Your task to perform on an android device: uninstall "Microsoft Authenticator" Image 0: 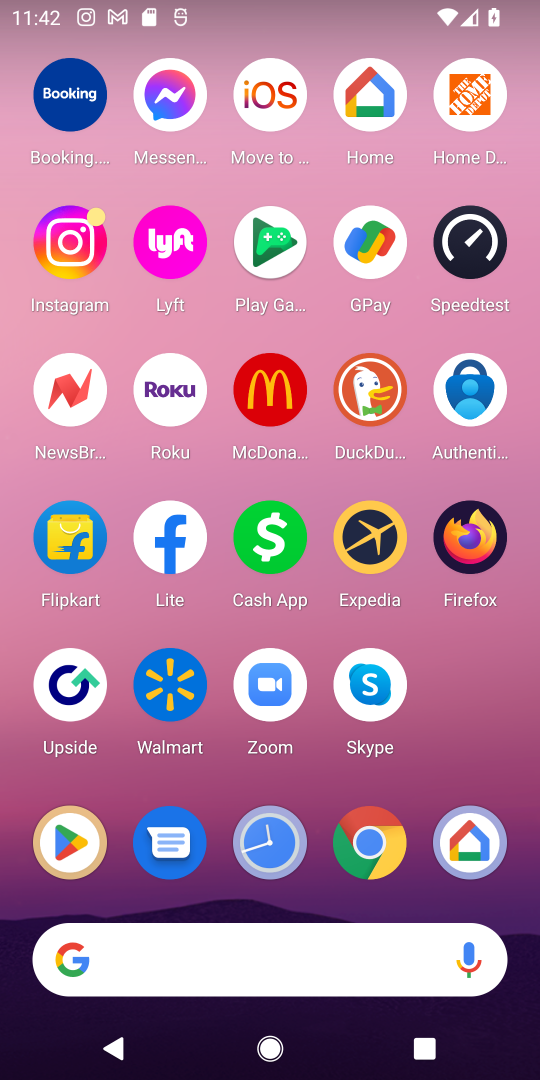
Step 0: click (64, 847)
Your task to perform on an android device: uninstall "Microsoft Authenticator" Image 1: 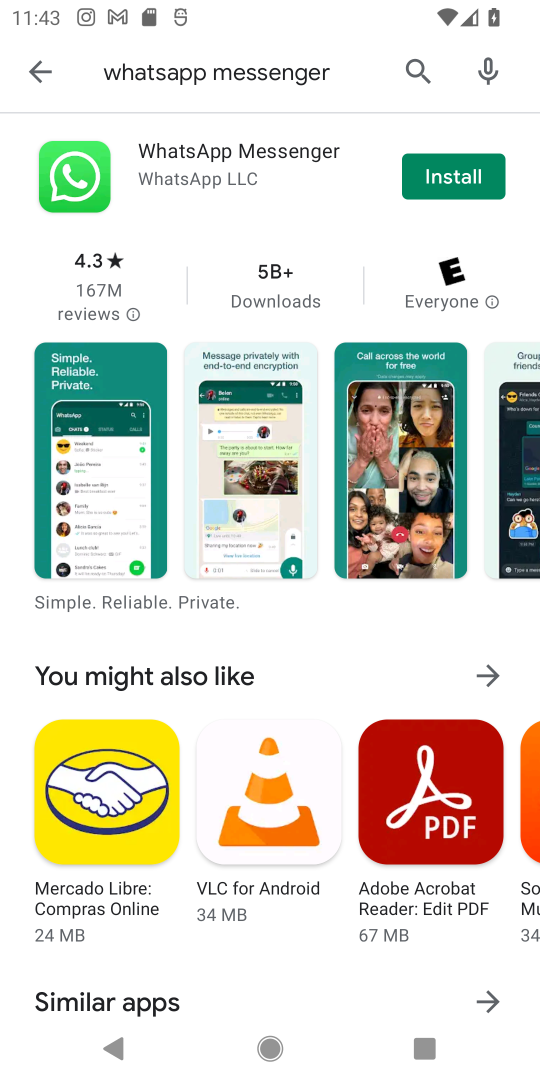
Step 1: click (425, 78)
Your task to perform on an android device: uninstall "Microsoft Authenticator" Image 2: 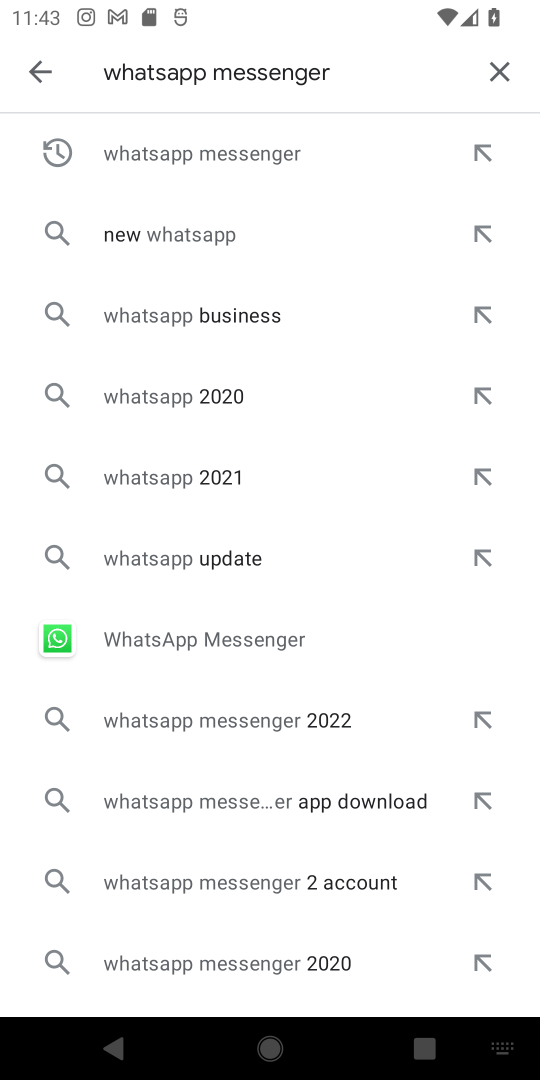
Step 2: click (497, 69)
Your task to perform on an android device: uninstall "Microsoft Authenticator" Image 3: 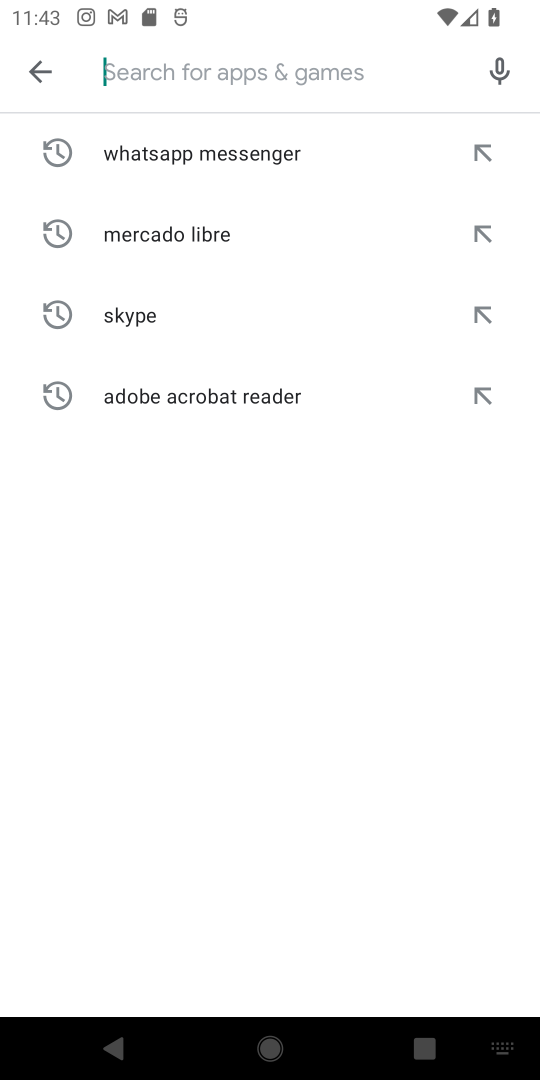
Step 3: click (206, 58)
Your task to perform on an android device: uninstall "Microsoft Authenticator" Image 4: 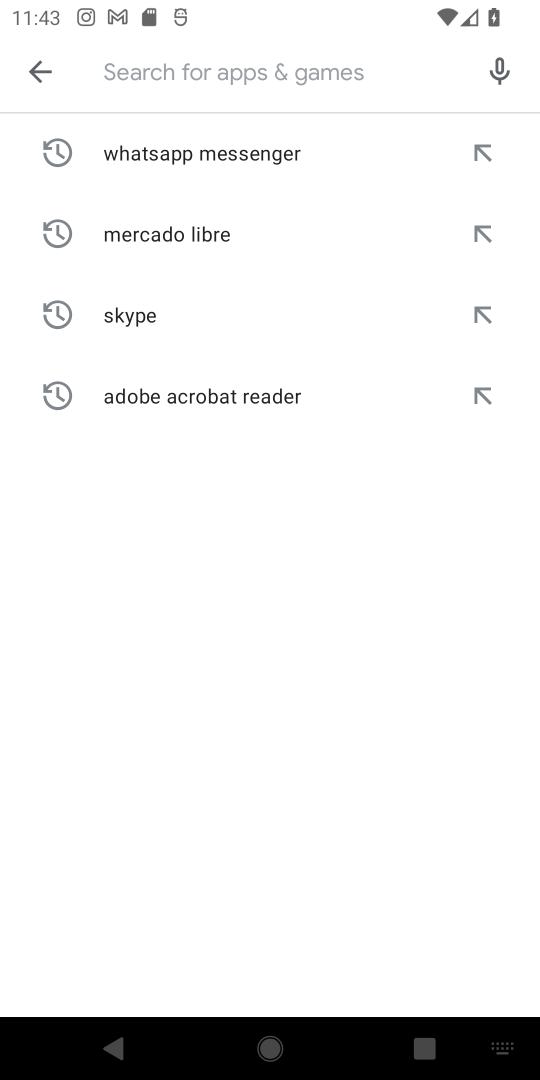
Step 4: type "Microsoft Authenticator"
Your task to perform on an android device: uninstall "Microsoft Authenticator" Image 5: 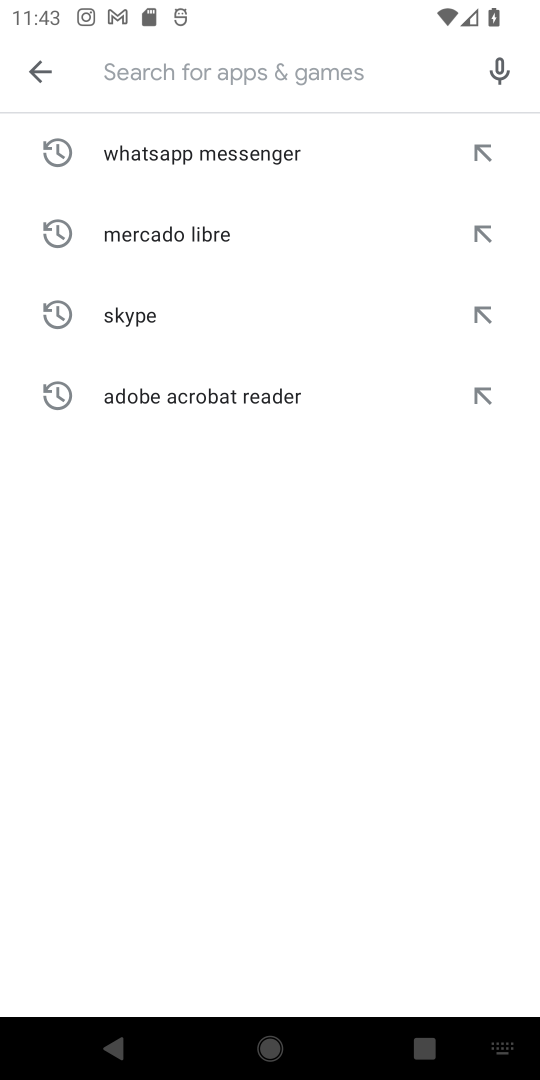
Step 5: click (97, 559)
Your task to perform on an android device: uninstall "Microsoft Authenticator" Image 6: 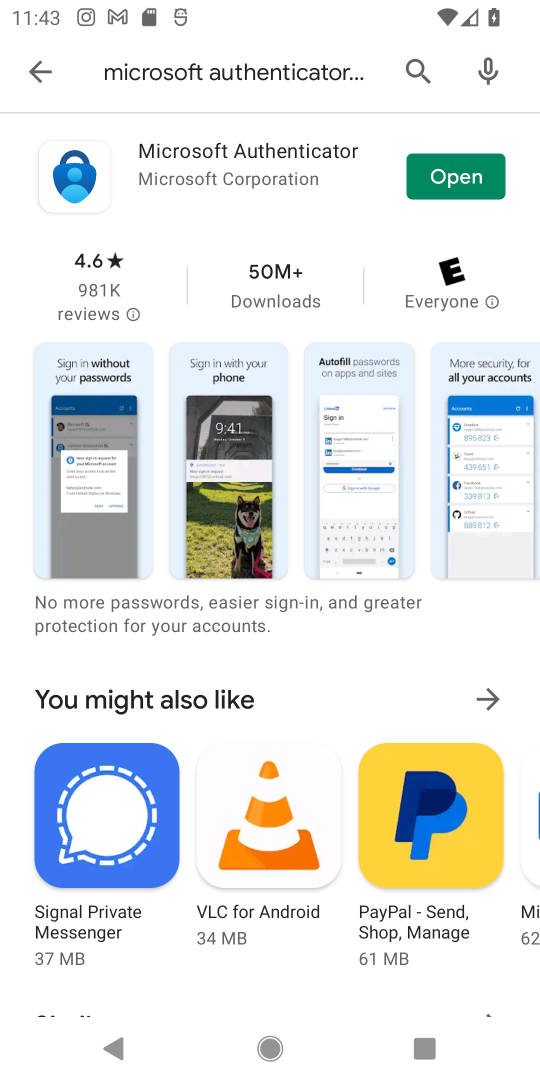
Step 6: click (216, 152)
Your task to perform on an android device: uninstall "Microsoft Authenticator" Image 7: 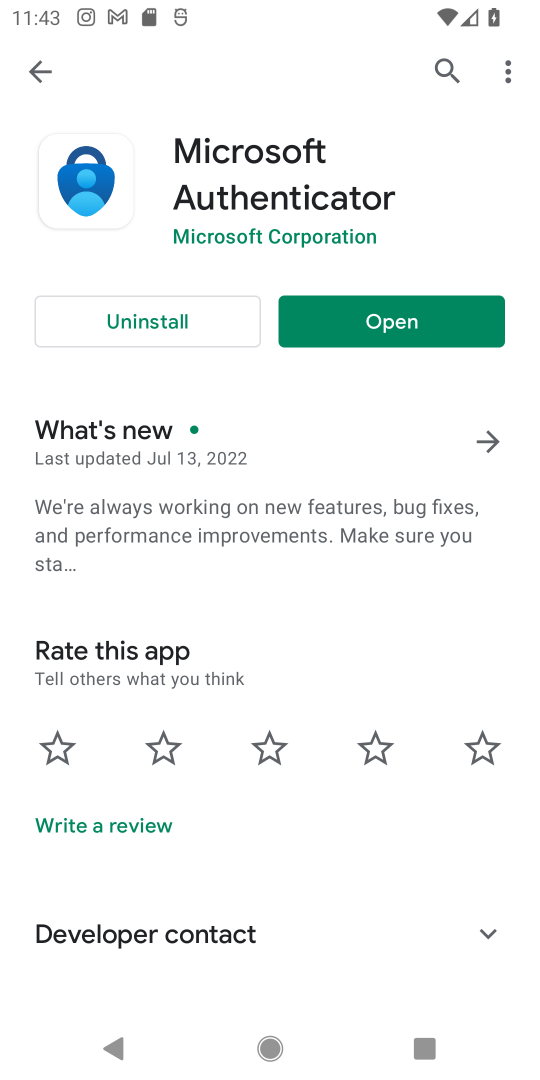
Step 7: click (155, 323)
Your task to perform on an android device: uninstall "Microsoft Authenticator" Image 8: 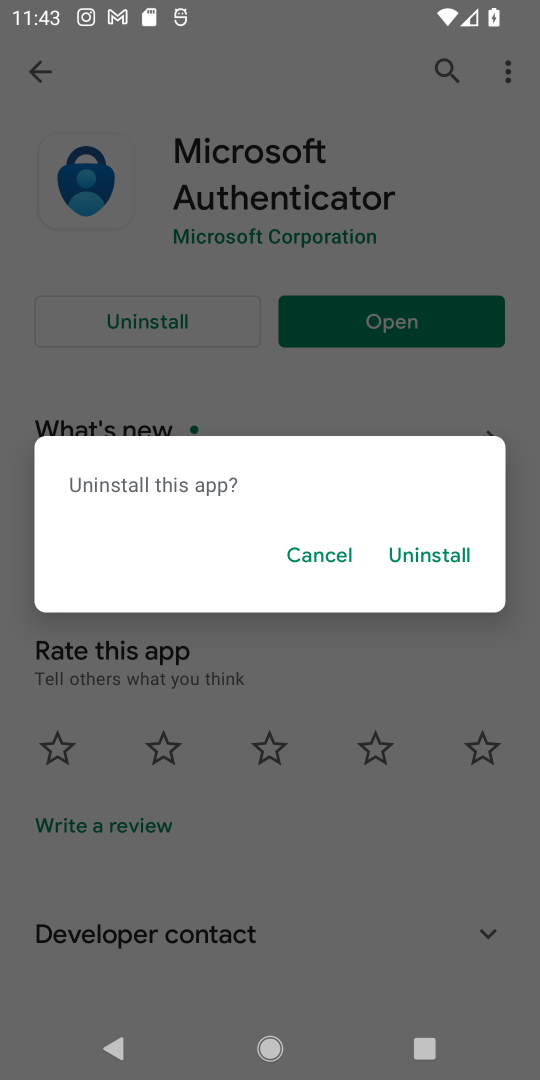
Step 8: click (424, 555)
Your task to perform on an android device: uninstall "Microsoft Authenticator" Image 9: 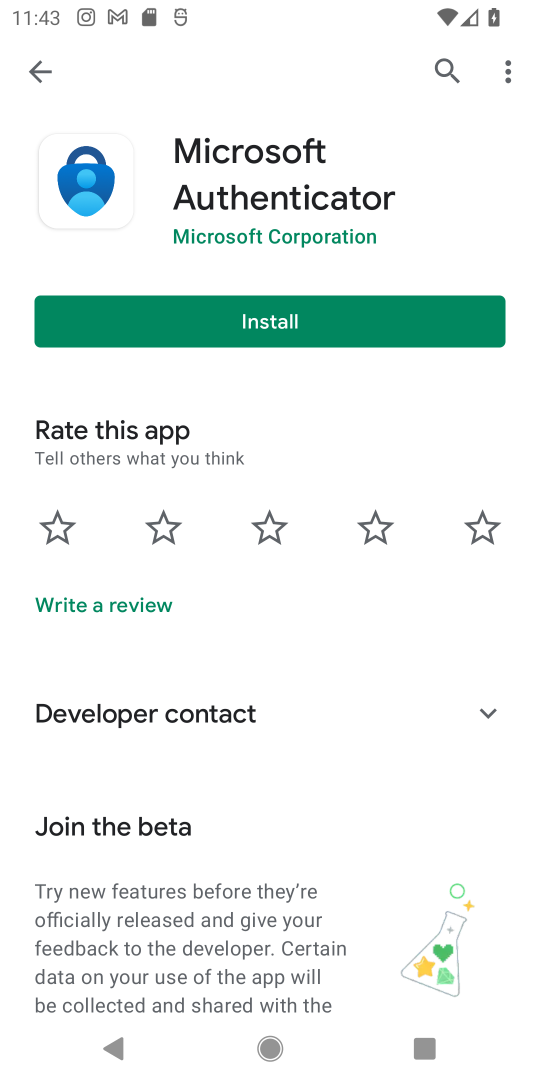
Step 9: task complete